Your task to perform on an android device: Open location settings Image 0: 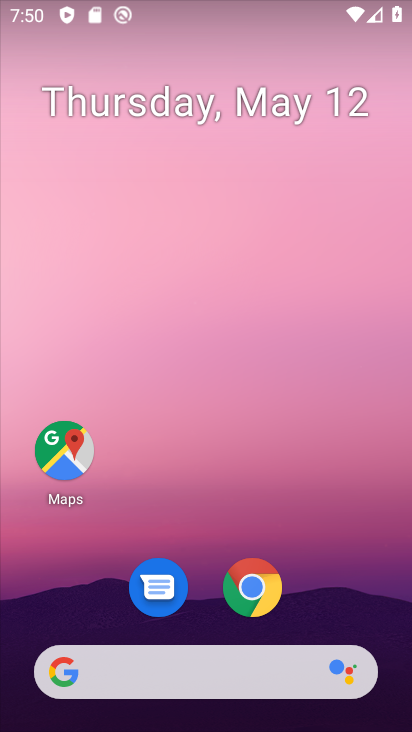
Step 0: drag from (302, 606) to (278, 213)
Your task to perform on an android device: Open location settings Image 1: 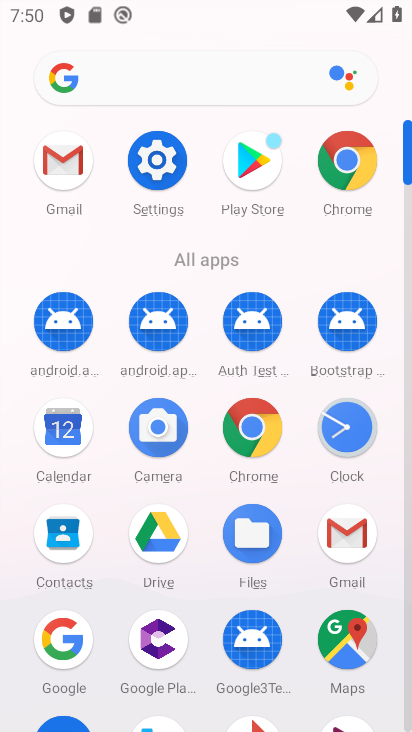
Step 1: click (150, 170)
Your task to perform on an android device: Open location settings Image 2: 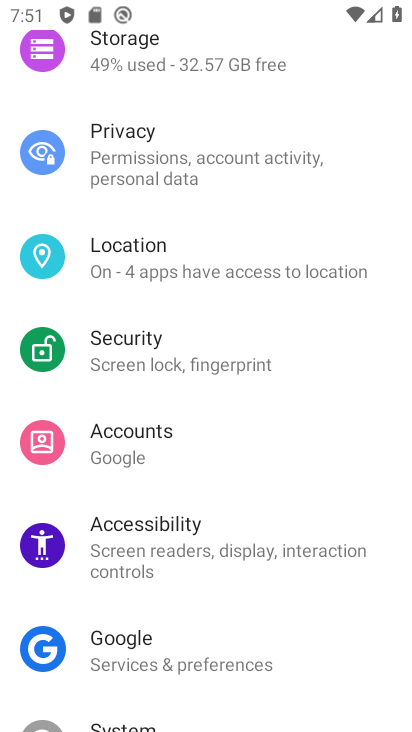
Step 2: click (174, 265)
Your task to perform on an android device: Open location settings Image 3: 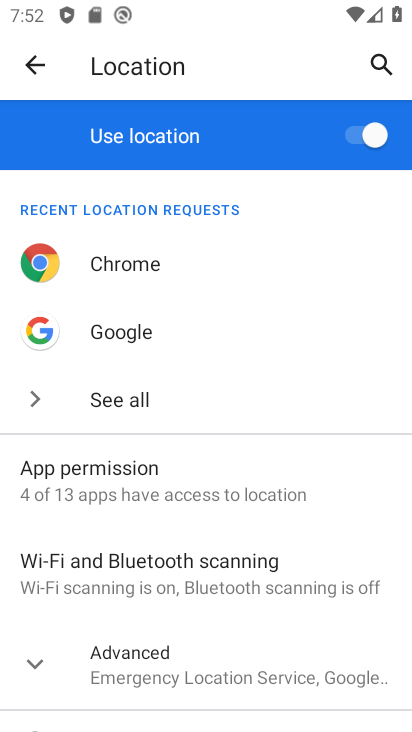
Step 3: task complete